Your task to perform on an android device: change the clock display to digital Image 0: 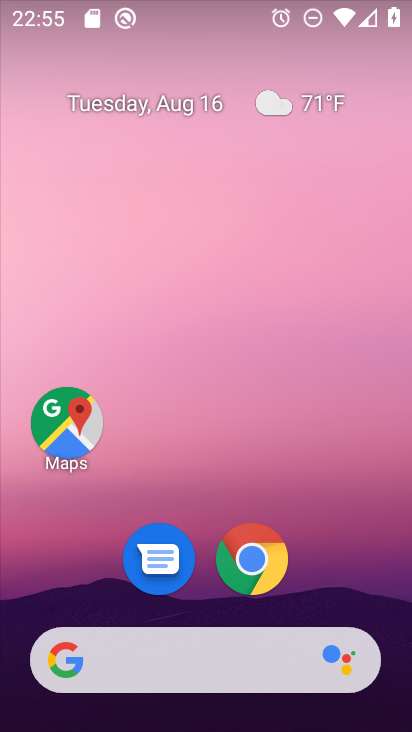
Step 0: drag from (202, 686) to (190, 161)
Your task to perform on an android device: change the clock display to digital Image 1: 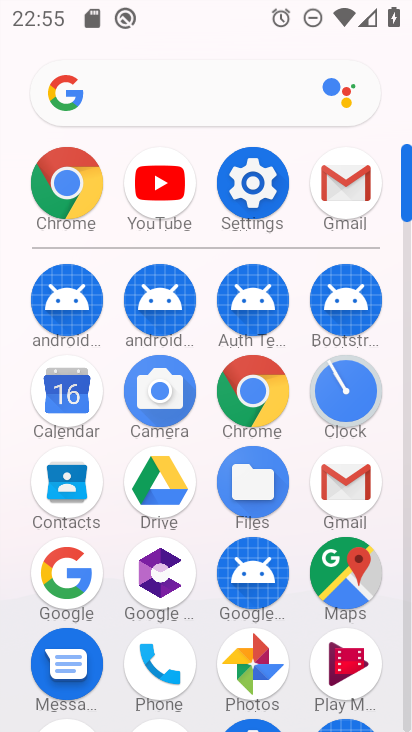
Step 1: click (345, 391)
Your task to perform on an android device: change the clock display to digital Image 2: 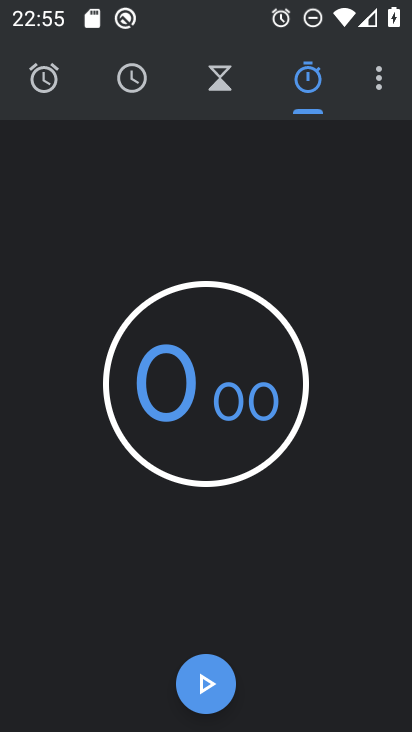
Step 2: click (381, 81)
Your task to perform on an android device: change the clock display to digital Image 3: 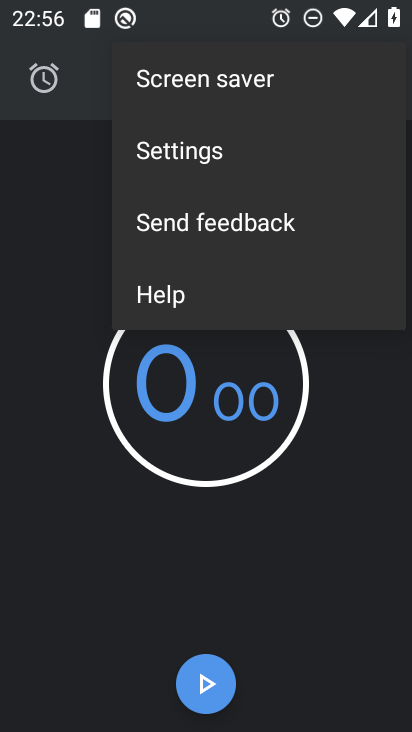
Step 3: click (201, 149)
Your task to perform on an android device: change the clock display to digital Image 4: 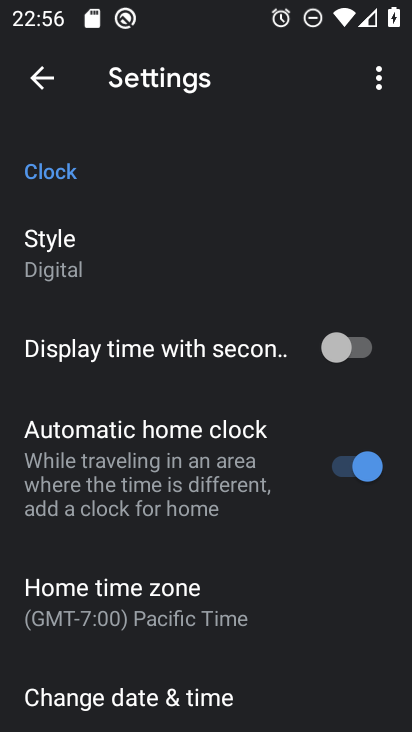
Step 4: drag from (151, 565) to (247, 416)
Your task to perform on an android device: change the clock display to digital Image 5: 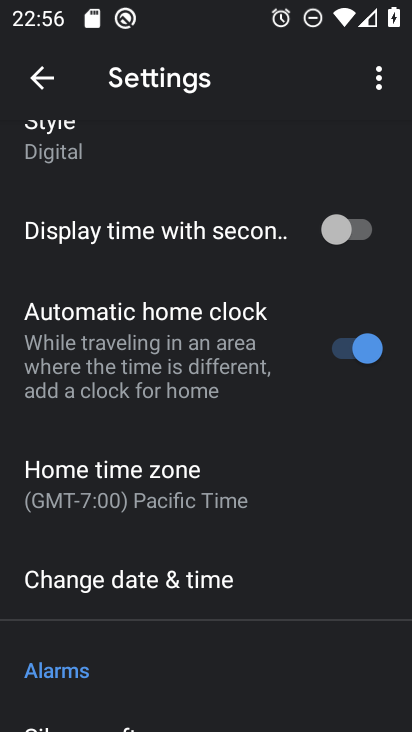
Step 5: click (56, 149)
Your task to perform on an android device: change the clock display to digital Image 6: 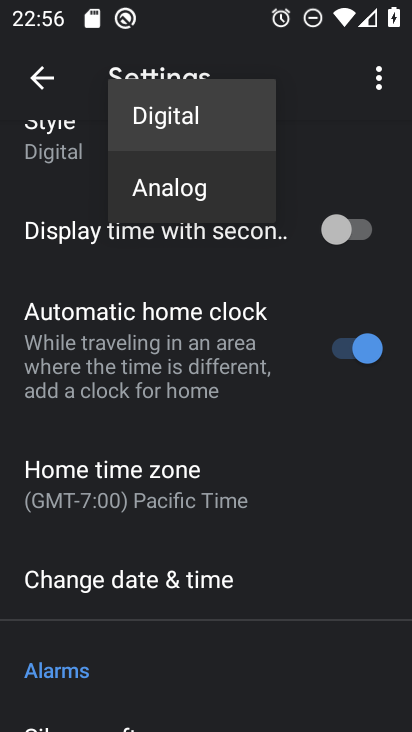
Step 6: click (169, 110)
Your task to perform on an android device: change the clock display to digital Image 7: 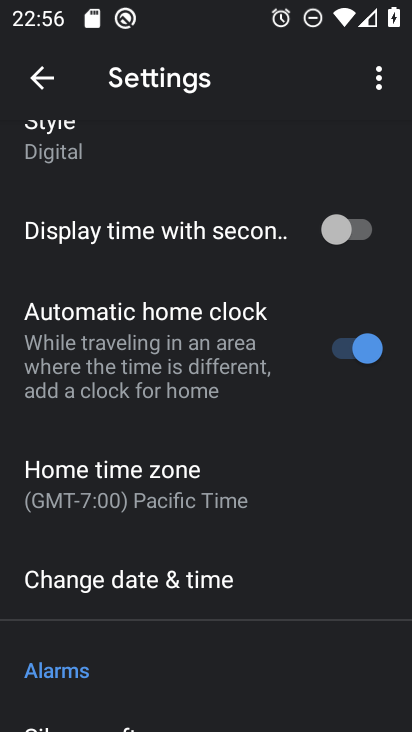
Step 7: task complete